Your task to perform on an android device: Search for "dell alienware" on ebay.com, select the first entry, and add it to the cart. Image 0: 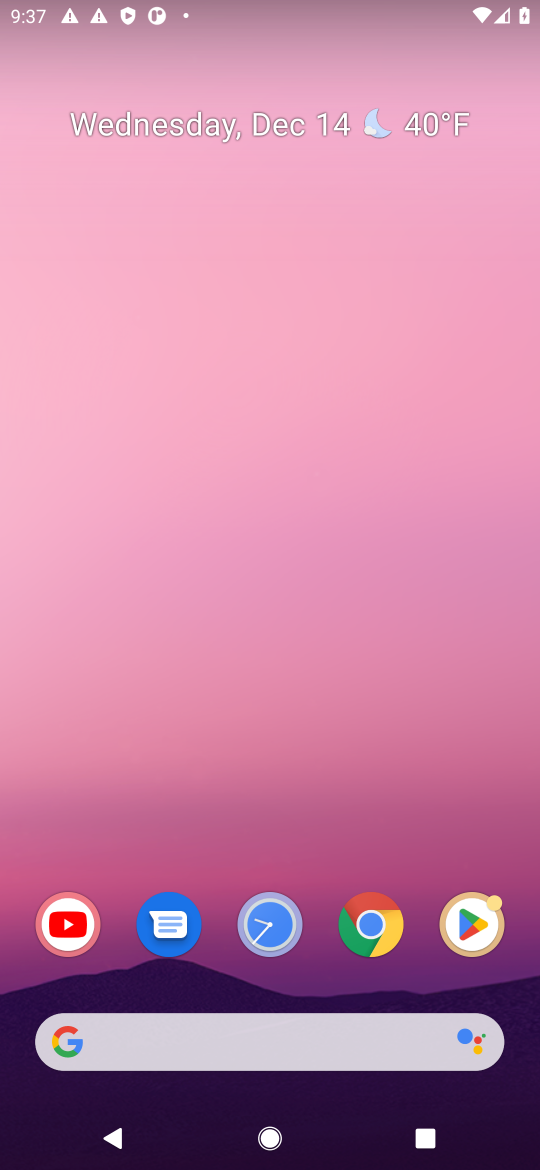
Step 0: click (373, 929)
Your task to perform on an android device: Search for "dell alienware" on ebay.com, select the first entry, and add it to the cart. Image 1: 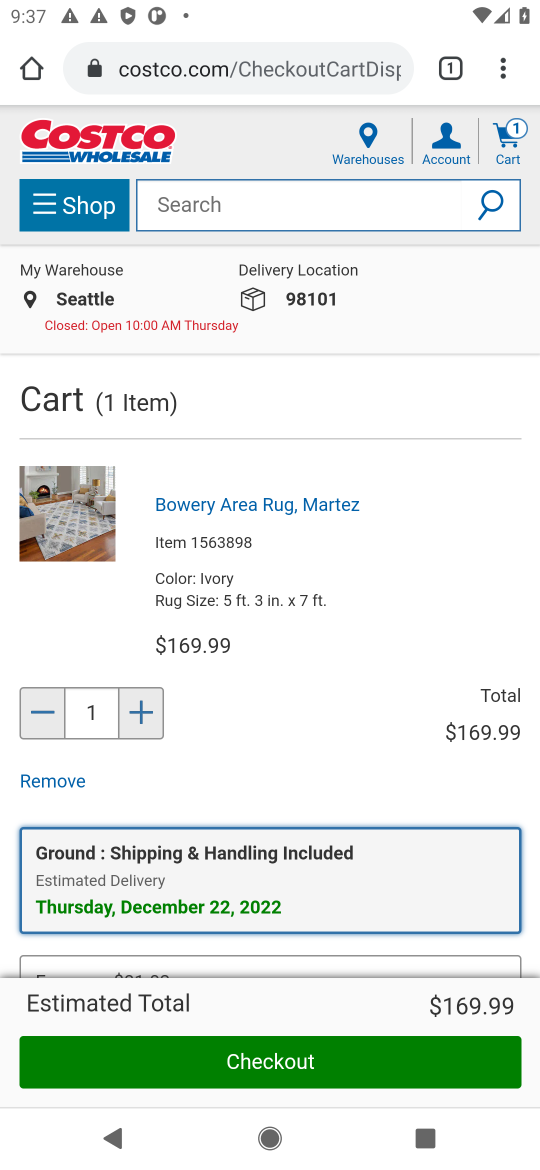
Step 1: click (256, 67)
Your task to perform on an android device: Search for "dell alienware" on ebay.com, select the first entry, and add it to the cart. Image 2: 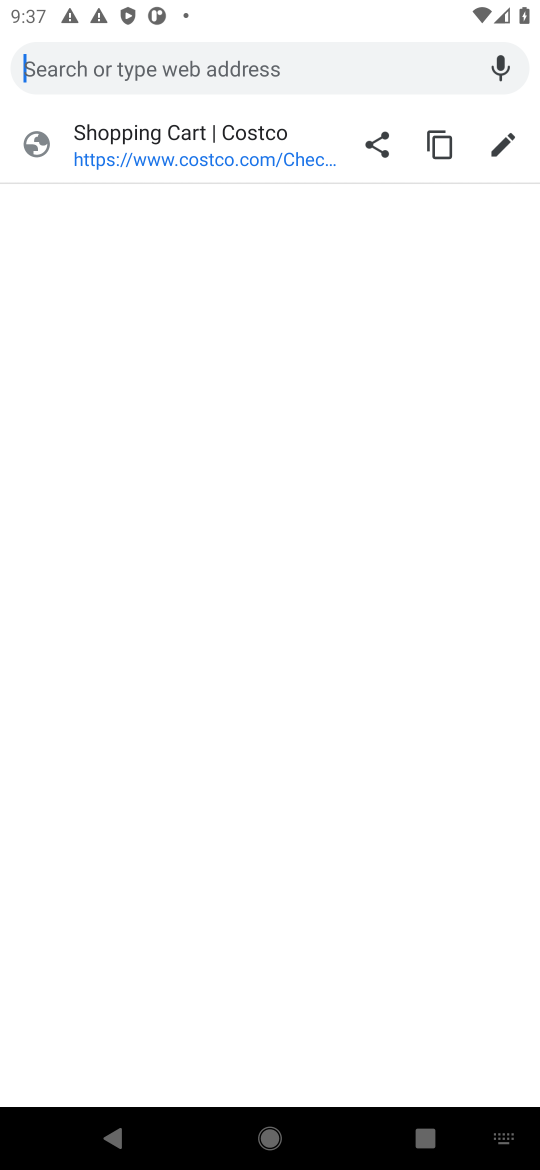
Step 2: type "EBAY"
Your task to perform on an android device: Search for "dell alienware" on ebay.com, select the first entry, and add it to the cart. Image 3: 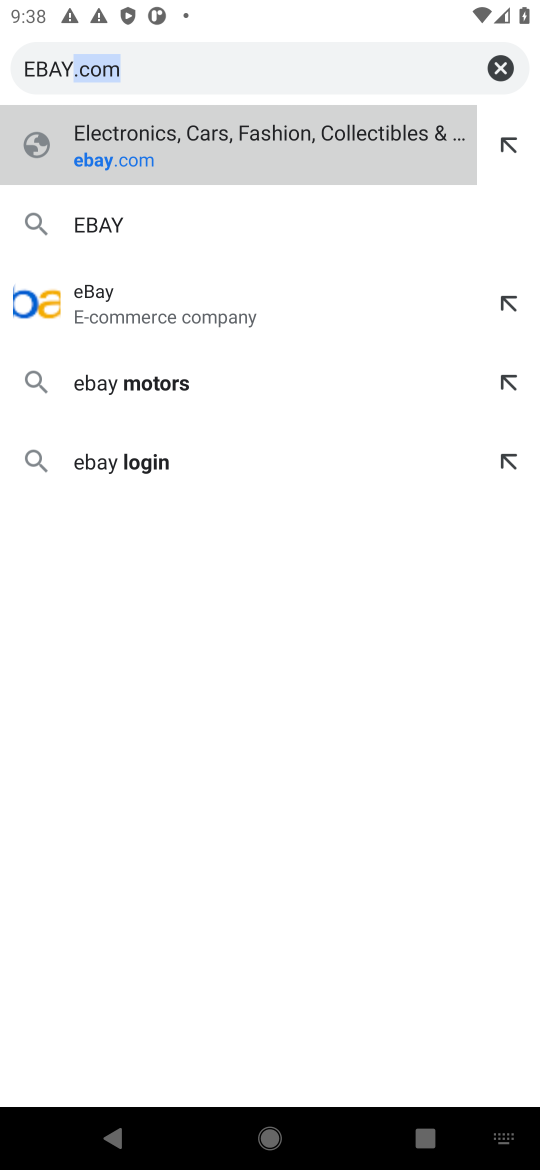
Step 3: click (209, 169)
Your task to perform on an android device: Search for "dell alienware" on ebay.com, select the first entry, and add it to the cart. Image 4: 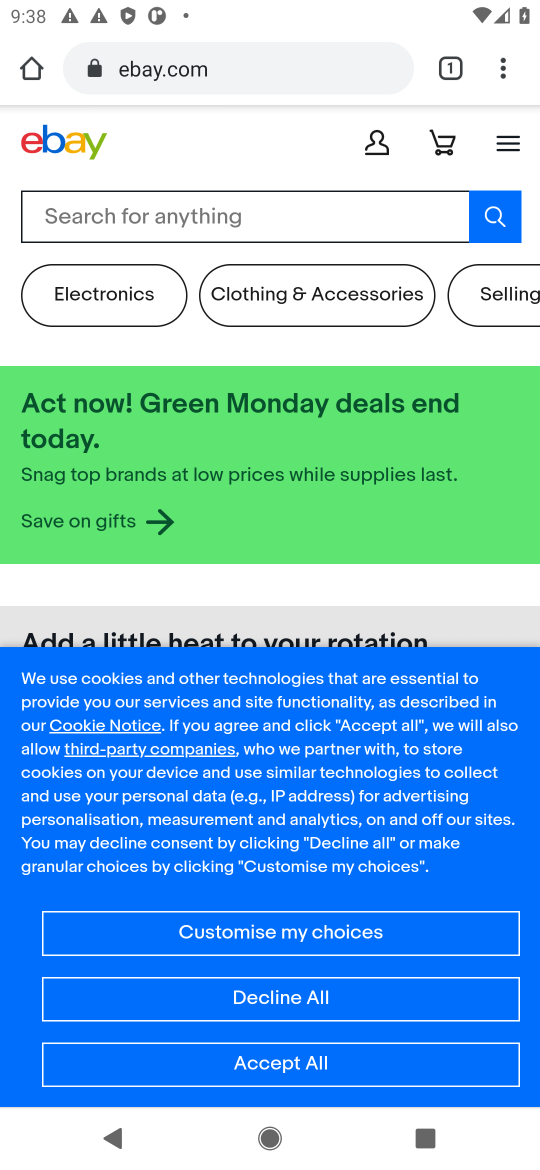
Step 4: click (277, 1062)
Your task to perform on an android device: Search for "dell alienware" on ebay.com, select the first entry, and add it to the cart. Image 5: 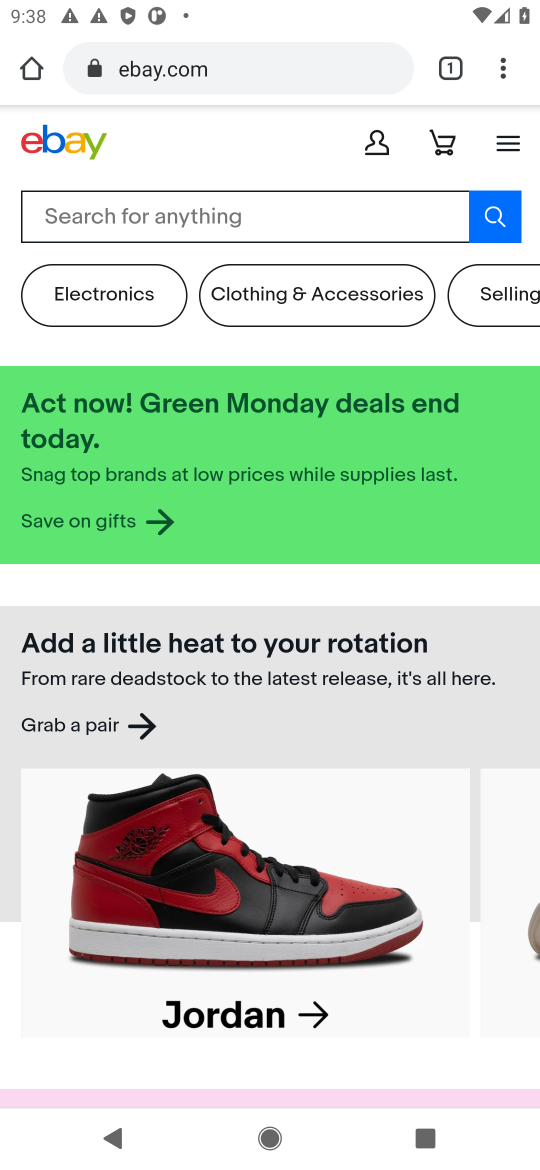
Step 5: click (277, 211)
Your task to perform on an android device: Search for "dell alienware" on ebay.com, select the first entry, and add it to the cart. Image 6: 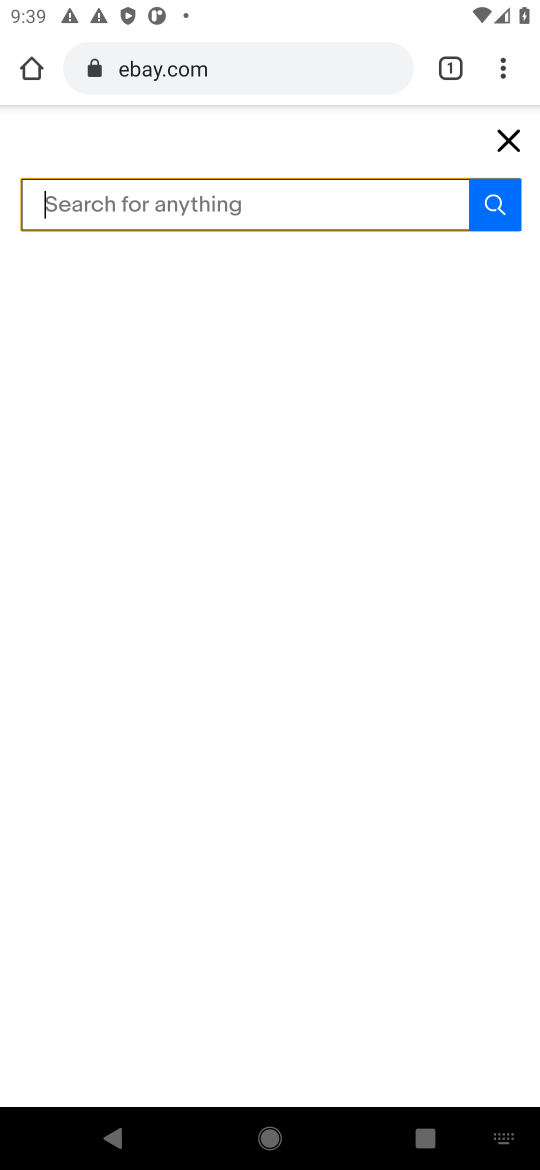
Step 6: type "DELL ALIENWARE"
Your task to perform on an android device: Search for "dell alienware" on ebay.com, select the first entry, and add it to the cart. Image 7: 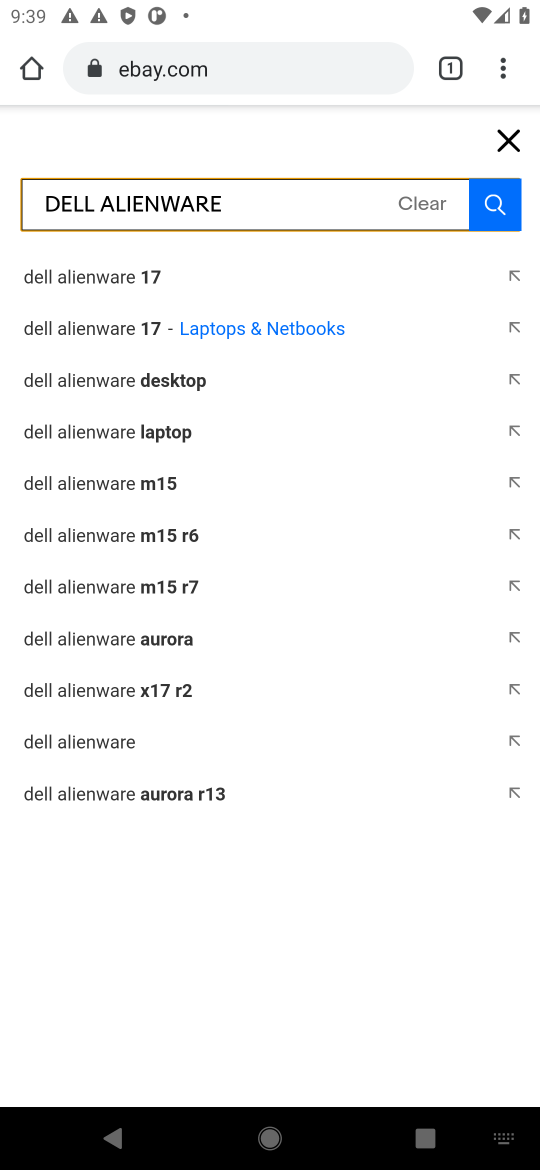
Step 7: click (179, 281)
Your task to perform on an android device: Search for "dell alienware" on ebay.com, select the first entry, and add it to the cart. Image 8: 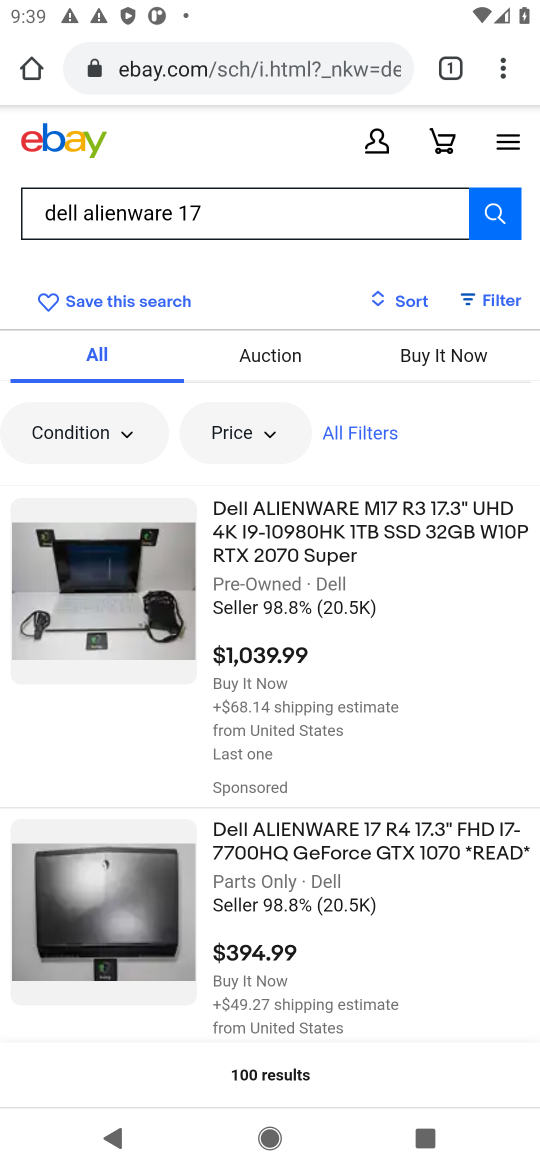
Step 8: click (390, 541)
Your task to perform on an android device: Search for "dell alienware" on ebay.com, select the first entry, and add it to the cart. Image 9: 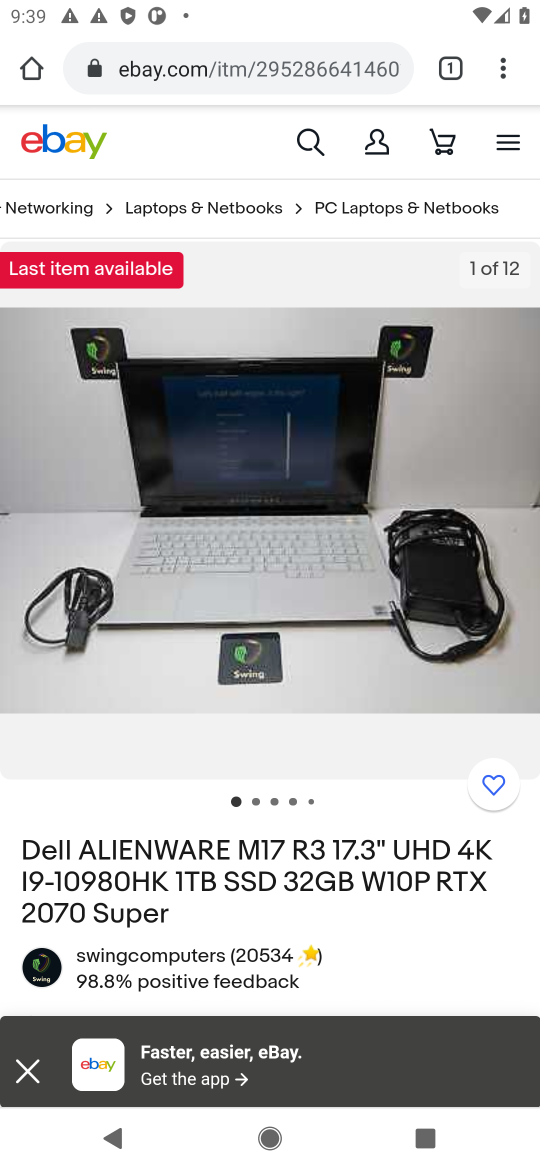
Step 9: drag from (394, 1032) to (278, 231)
Your task to perform on an android device: Search for "dell alienware" on ebay.com, select the first entry, and add it to the cart. Image 10: 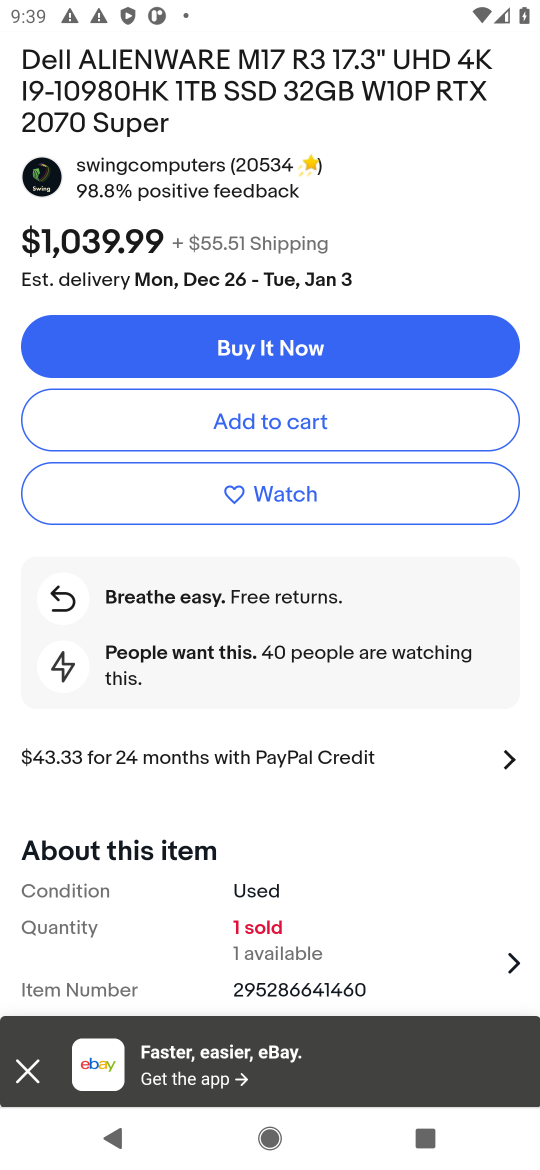
Step 10: click (266, 429)
Your task to perform on an android device: Search for "dell alienware" on ebay.com, select the first entry, and add it to the cart. Image 11: 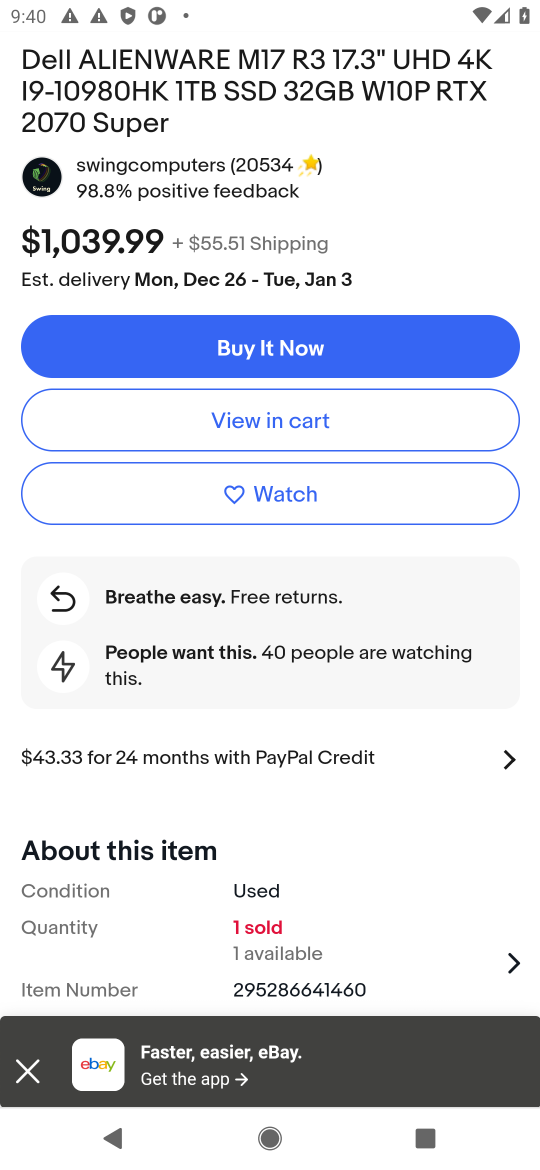
Step 11: task complete